Your task to perform on an android device: clear all cookies in the chrome app Image 0: 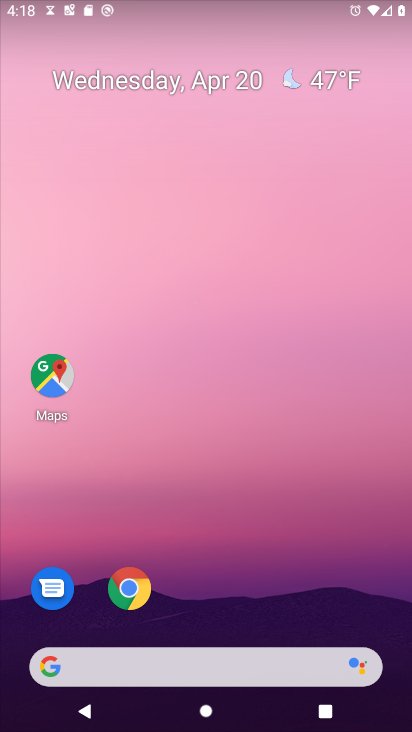
Step 0: click (130, 593)
Your task to perform on an android device: clear all cookies in the chrome app Image 1: 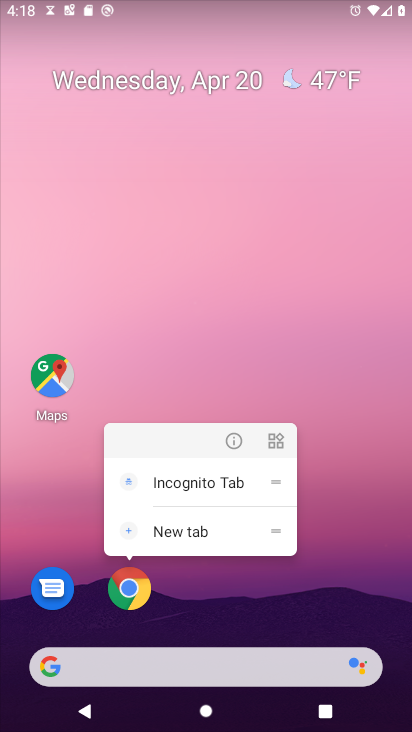
Step 1: click (130, 588)
Your task to perform on an android device: clear all cookies in the chrome app Image 2: 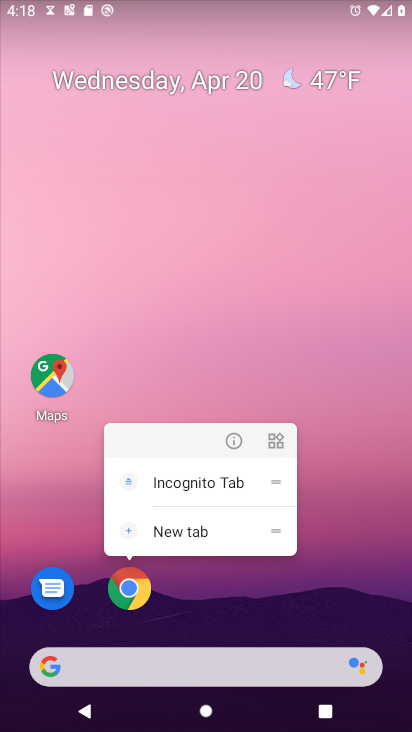
Step 2: click (130, 588)
Your task to perform on an android device: clear all cookies in the chrome app Image 3: 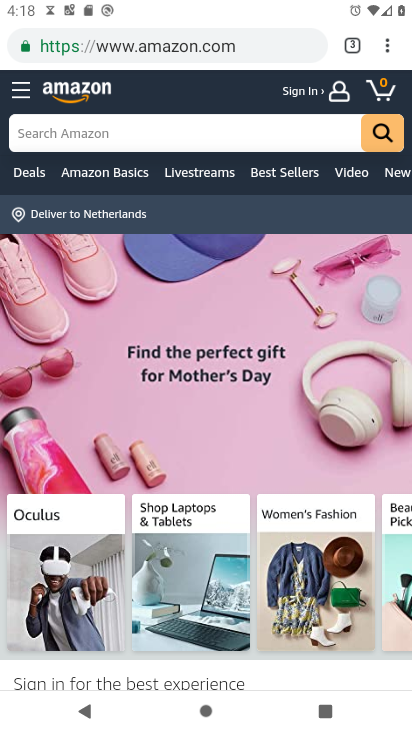
Step 3: click (378, 39)
Your task to perform on an android device: clear all cookies in the chrome app Image 4: 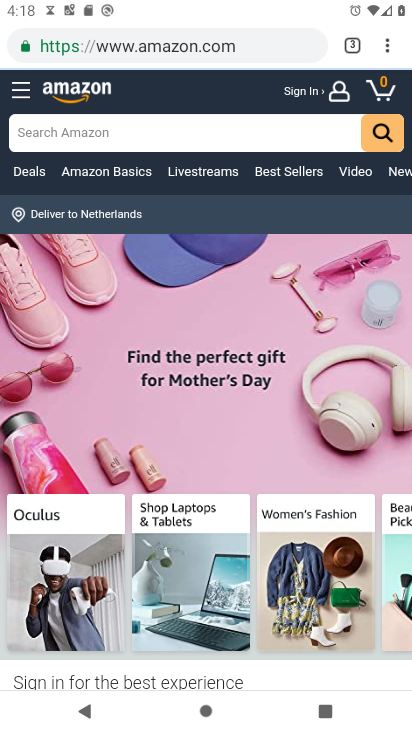
Step 4: click (378, 39)
Your task to perform on an android device: clear all cookies in the chrome app Image 5: 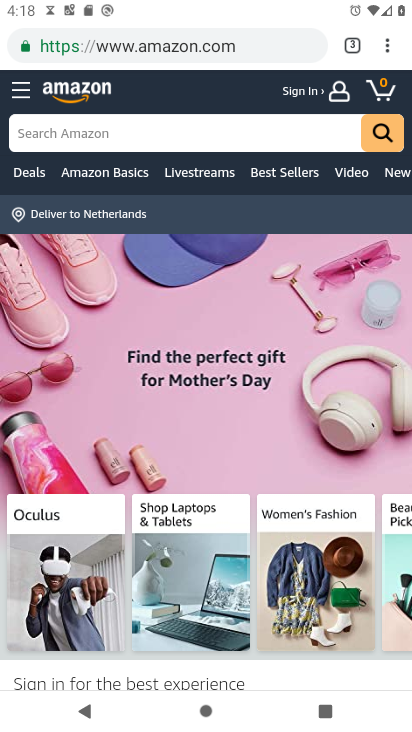
Step 5: click (380, 44)
Your task to perform on an android device: clear all cookies in the chrome app Image 6: 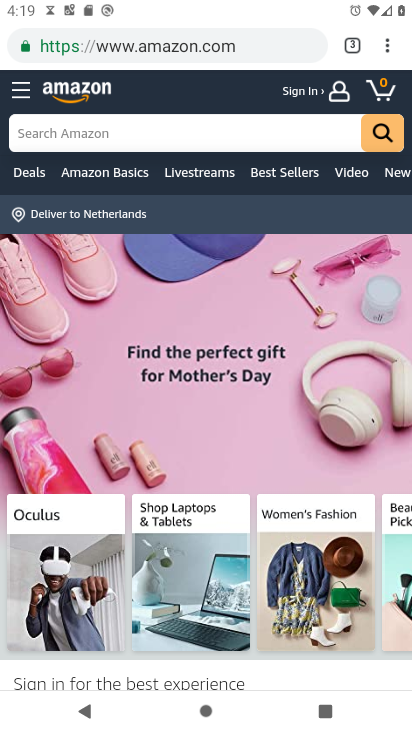
Step 6: click (380, 44)
Your task to perform on an android device: clear all cookies in the chrome app Image 7: 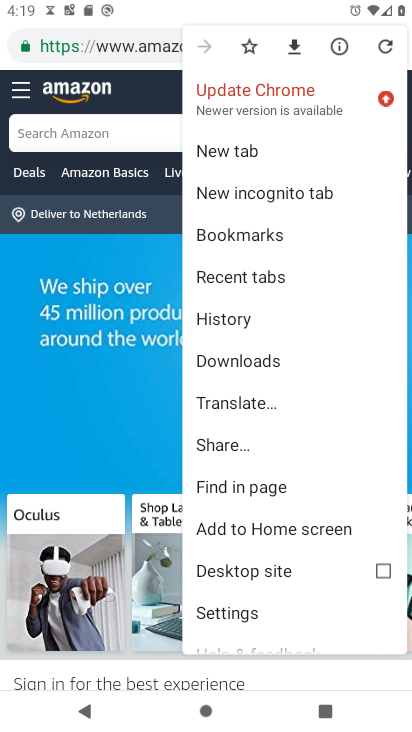
Step 7: click (223, 326)
Your task to perform on an android device: clear all cookies in the chrome app Image 8: 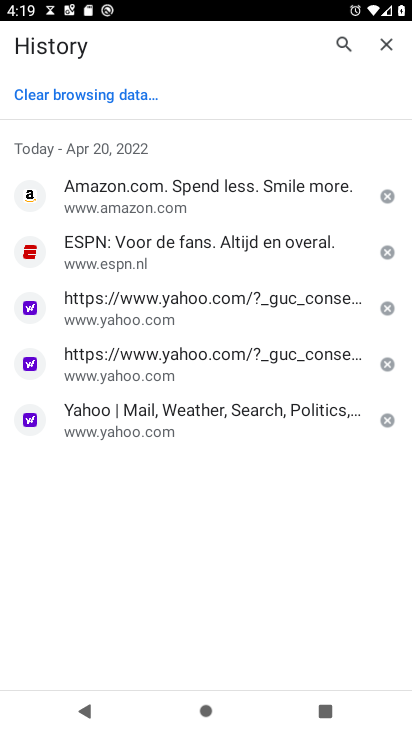
Step 8: click (84, 95)
Your task to perform on an android device: clear all cookies in the chrome app Image 9: 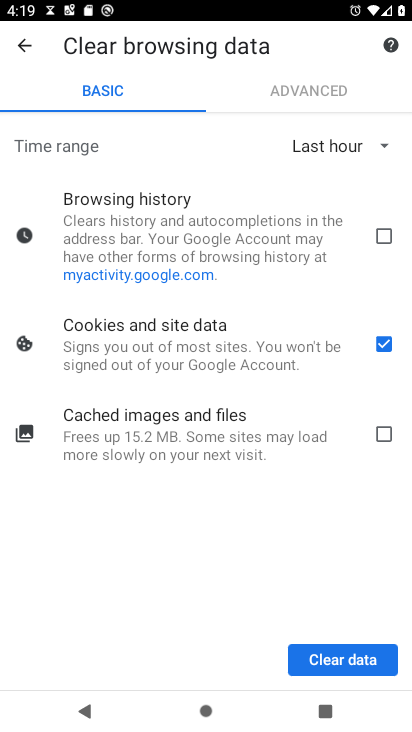
Step 9: click (349, 663)
Your task to perform on an android device: clear all cookies in the chrome app Image 10: 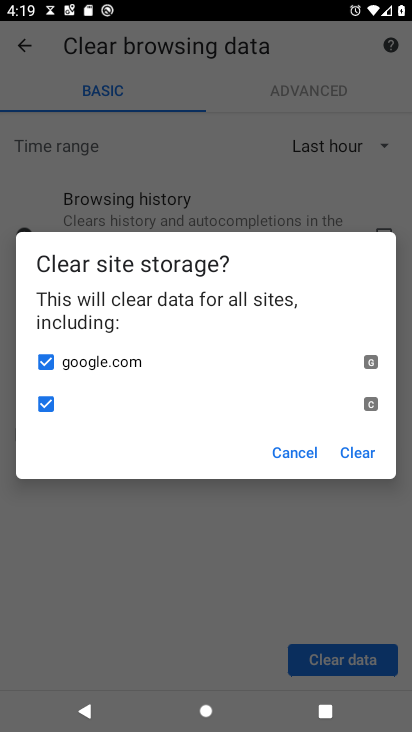
Step 10: click (356, 448)
Your task to perform on an android device: clear all cookies in the chrome app Image 11: 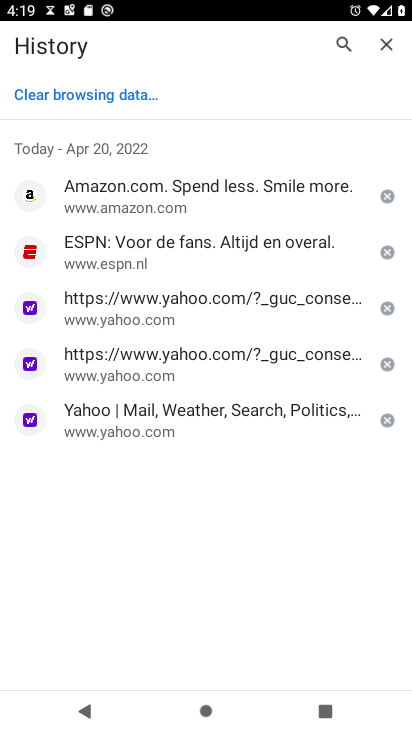
Step 11: task complete